Your task to perform on an android device: What's the weather? Image 0: 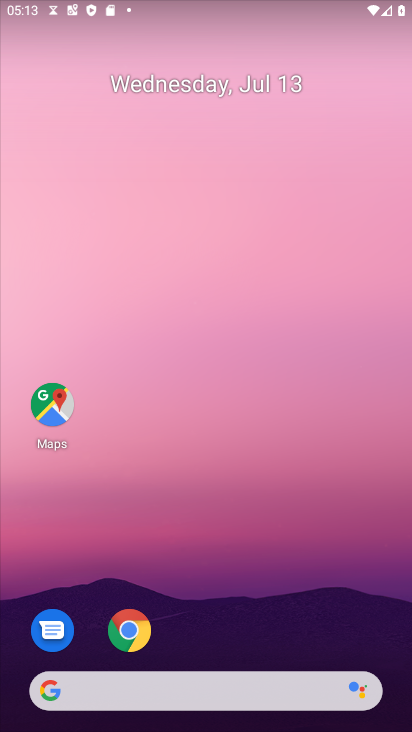
Step 0: drag from (215, 695) to (232, 53)
Your task to perform on an android device: What's the weather? Image 1: 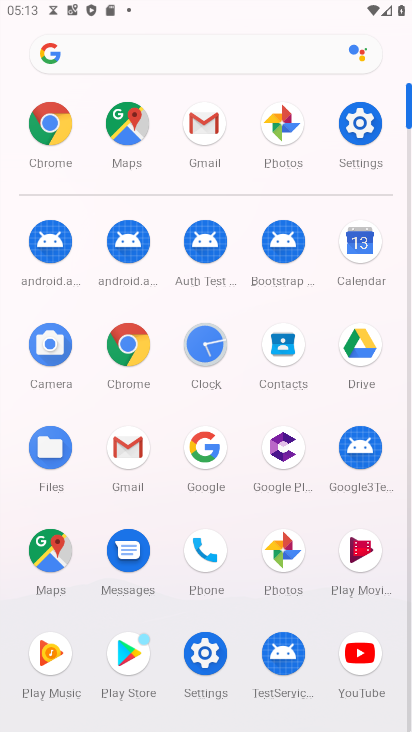
Step 1: click (123, 328)
Your task to perform on an android device: What's the weather? Image 2: 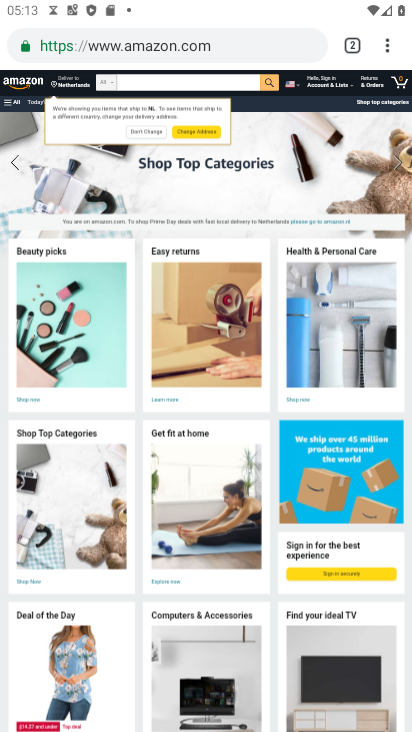
Step 2: click (213, 53)
Your task to perform on an android device: What's the weather? Image 3: 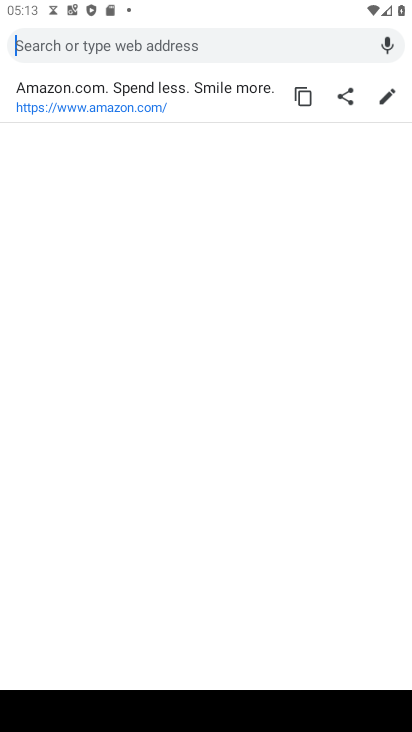
Step 3: type "whats the weather"
Your task to perform on an android device: What's the weather? Image 4: 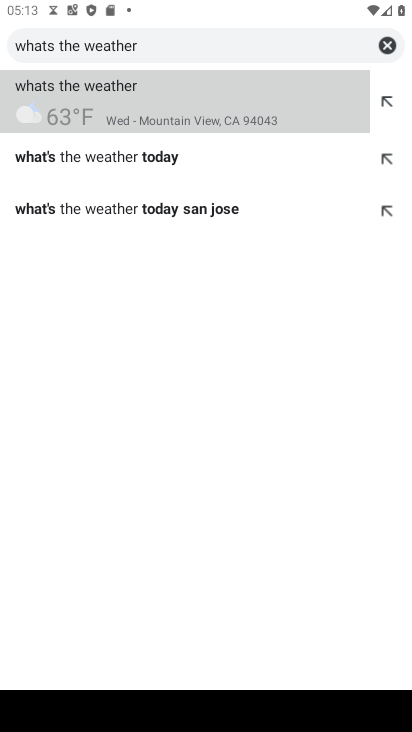
Step 4: click (135, 97)
Your task to perform on an android device: What's the weather? Image 5: 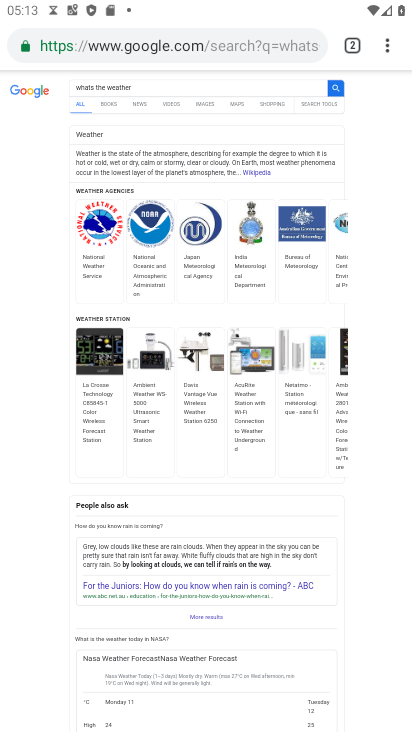
Step 5: task complete